Your task to perform on an android device: Do I have any events tomorrow? Image 0: 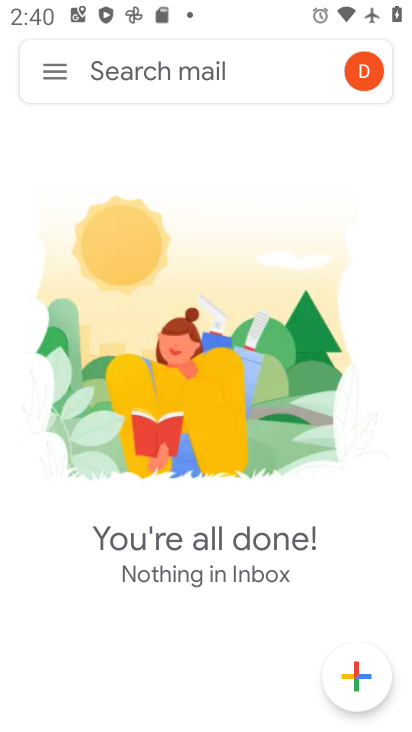
Step 0: press home button
Your task to perform on an android device: Do I have any events tomorrow? Image 1: 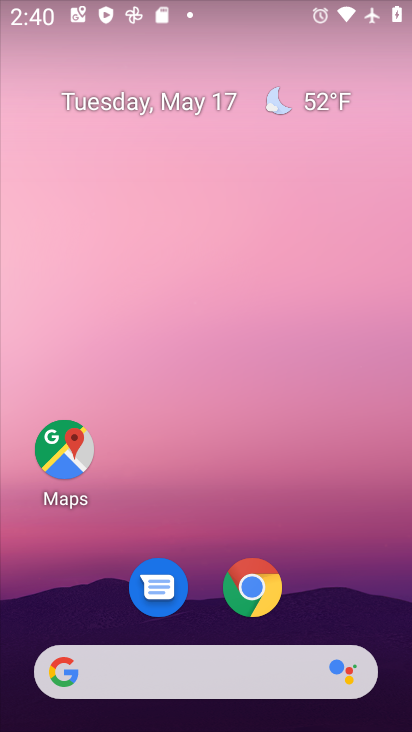
Step 1: drag from (337, 574) to (322, 86)
Your task to perform on an android device: Do I have any events tomorrow? Image 2: 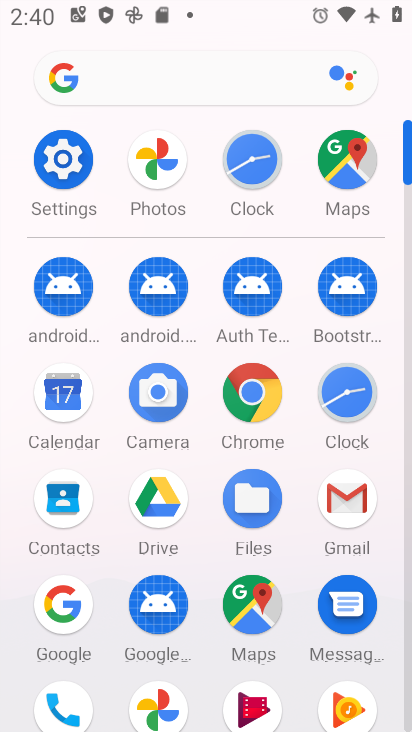
Step 2: click (44, 408)
Your task to perform on an android device: Do I have any events tomorrow? Image 3: 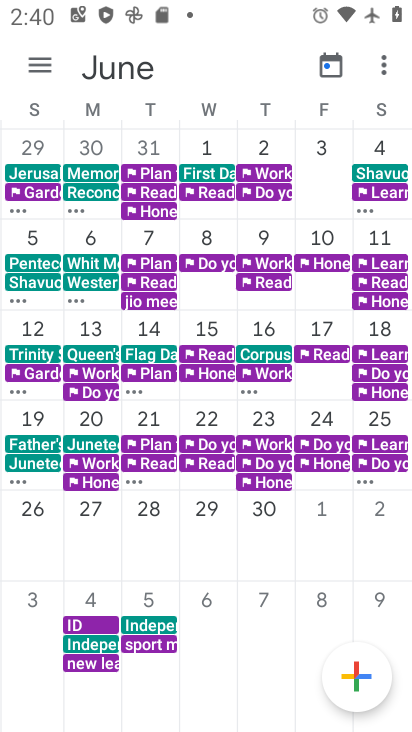
Step 3: task complete